Your task to perform on an android device: open sync settings in chrome Image 0: 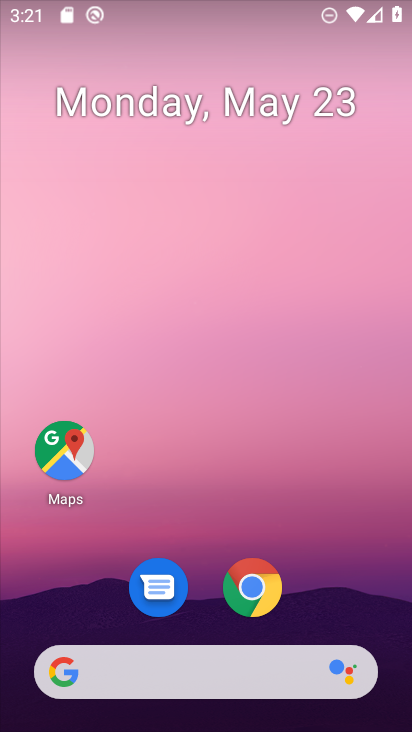
Step 0: click (259, 588)
Your task to perform on an android device: open sync settings in chrome Image 1: 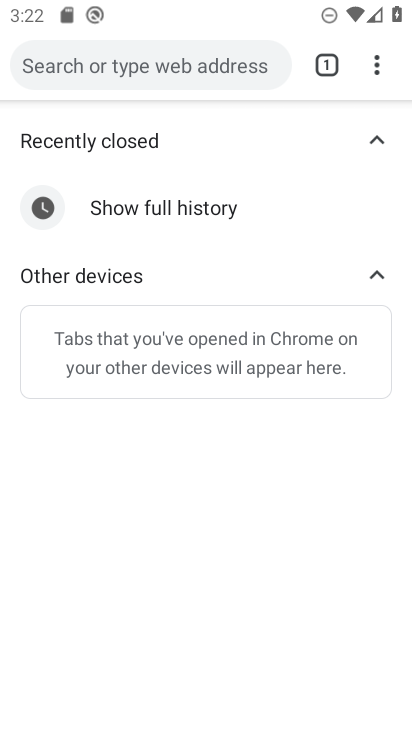
Step 1: click (381, 64)
Your task to perform on an android device: open sync settings in chrome Image 2: 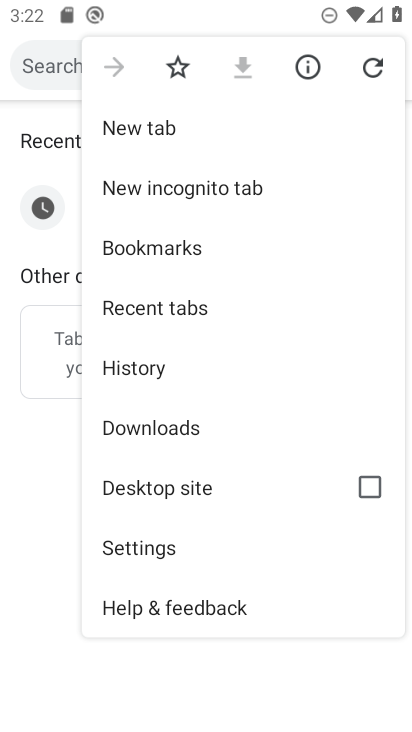
Step 2: click (169, 556)
Your task to perform on an android device: open sync settings in chrome Image 3: 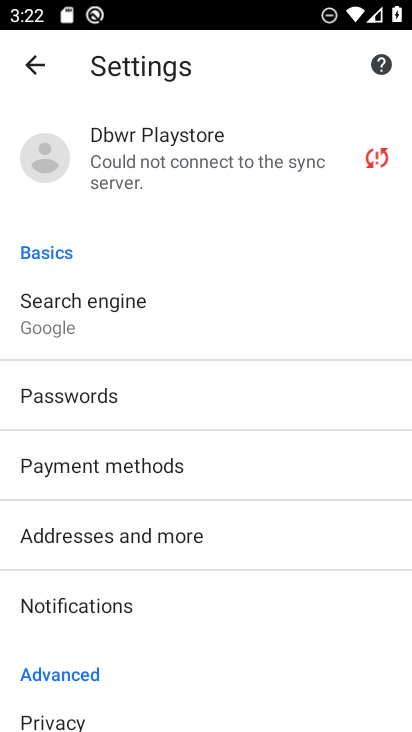
Step 3: click (168, 163)
Your task to perform on an android device: open sync settings in chrome Image 4: 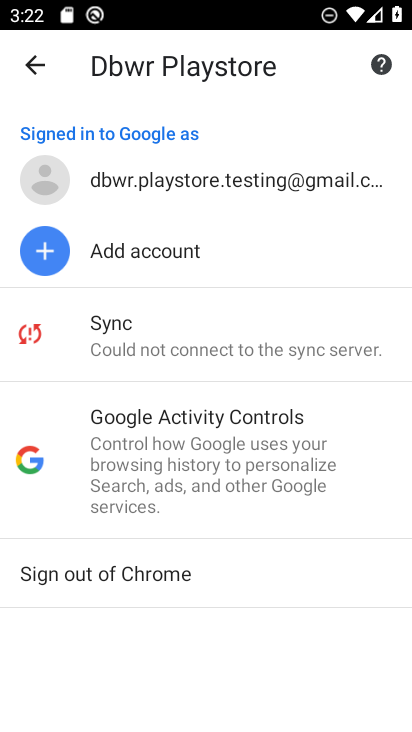
Step 4: click (199, 348)
Your task to perform on an android device: open sync settings in chrome Image 5: 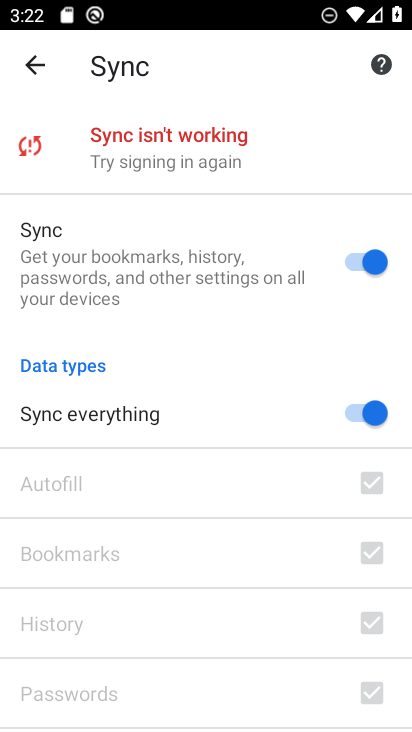
Step 5: task complete